Your task to perform on an android device: add a contact Image 0: 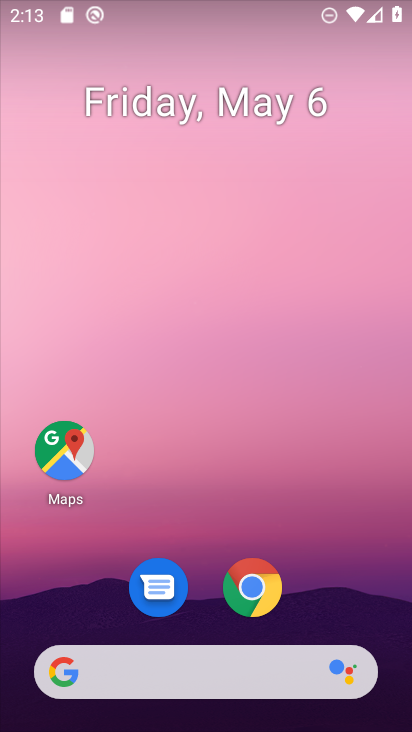
Step 0: drag from (305, 543) to (263, 95)
Your task to perform on an android device: add a contact Image 1: 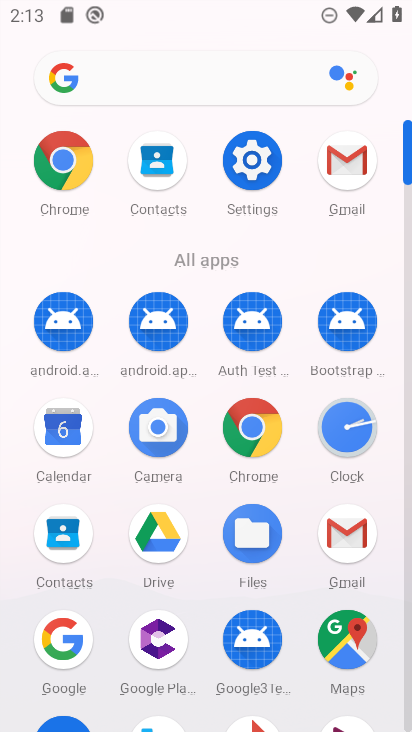
Step 1: click (151, 165)
Your task to perform on an android device: add a contact Image 2: 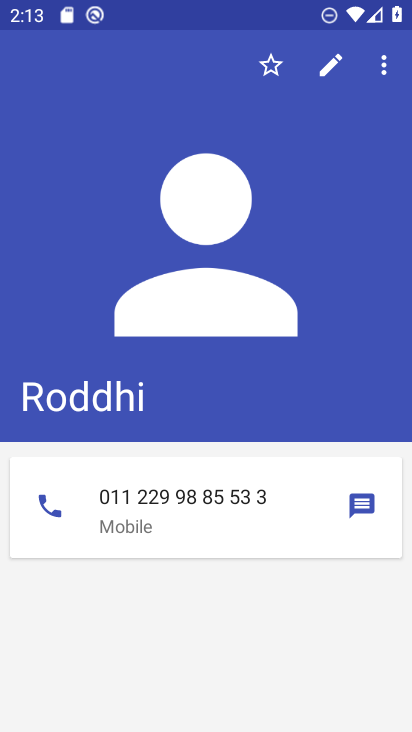
Step 2: click (386, 66)
Your task to perform on an android device: add a contact Image 3: 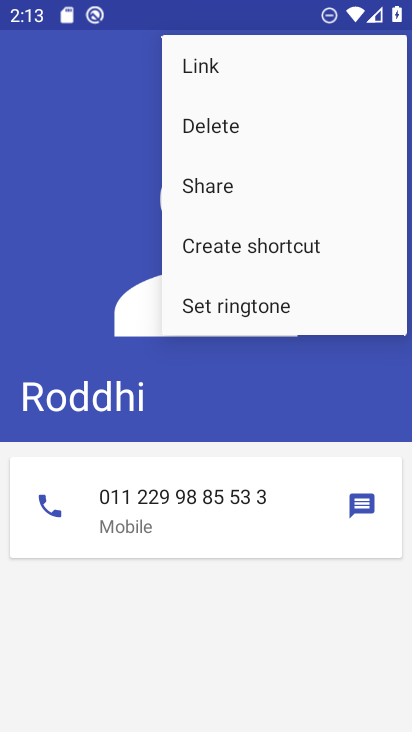
Step 3: click (345, 367)
Your task to perform on an android device: add a contact Image 4: 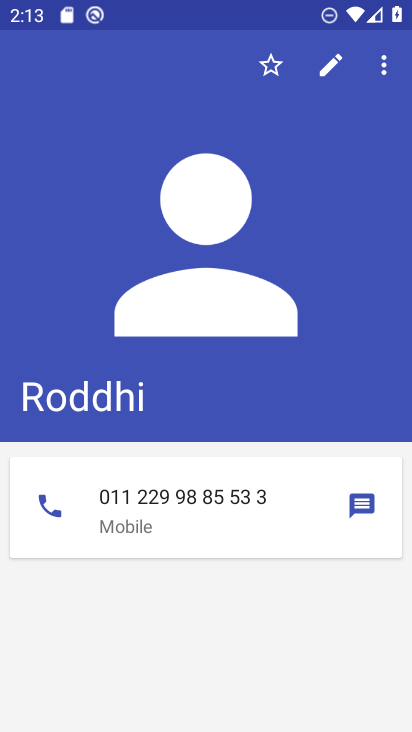
Step 4: press back button
Your task to perform on an android device: add a contact Image 5: 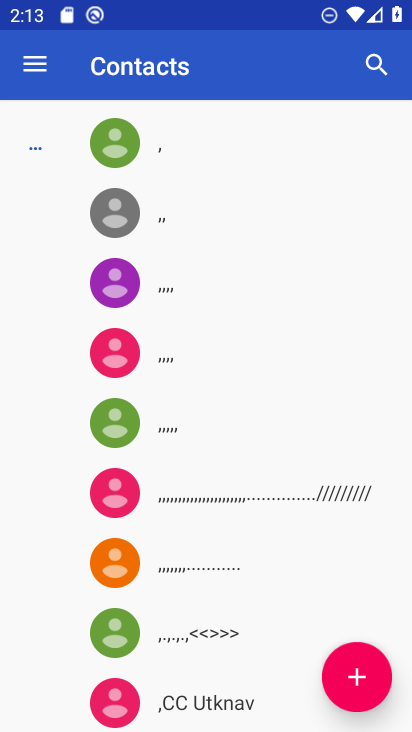
Step 5: click (369, 653)
Your task to perform on an android device: add a contact Image 6: 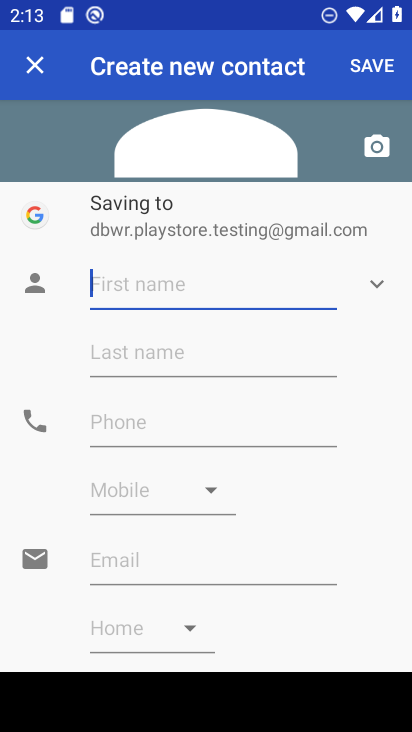
Step 6: type "Siddhhi"
Your task to perform on an android device: add a contact Image 7: 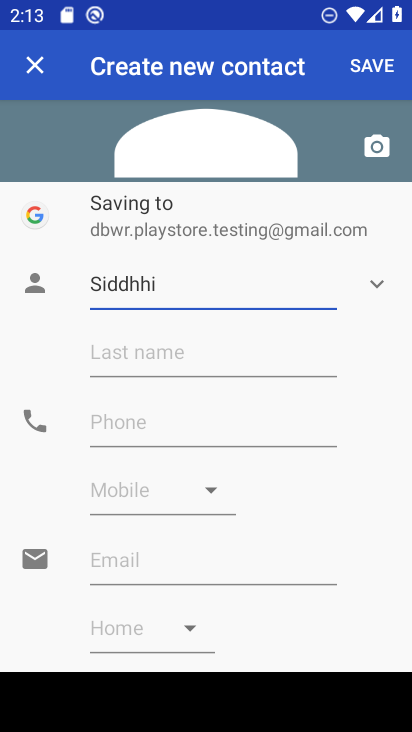
Step 7: click (232, 425)
Your task to perform on an android device: add a contact Image 8: 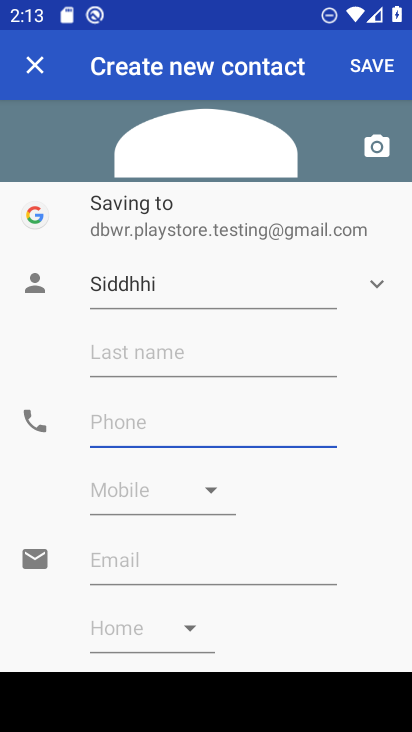
Step 8: type "01122334455"
Your task to perform on an android device: add a contact Image 9: 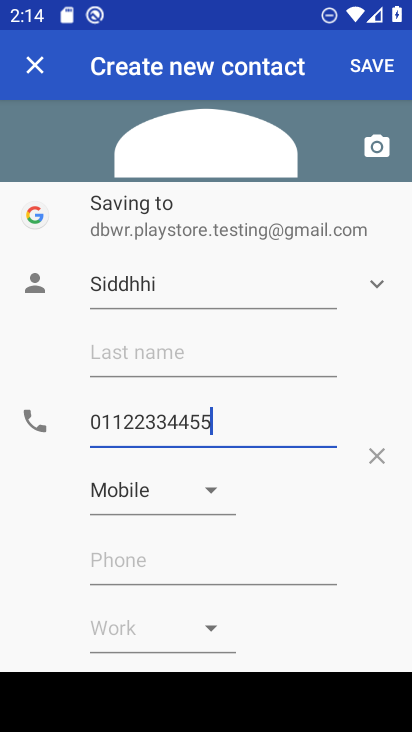
Step 9: click (378, 63)
Your task to perform on an android device: add a contact Image 10: 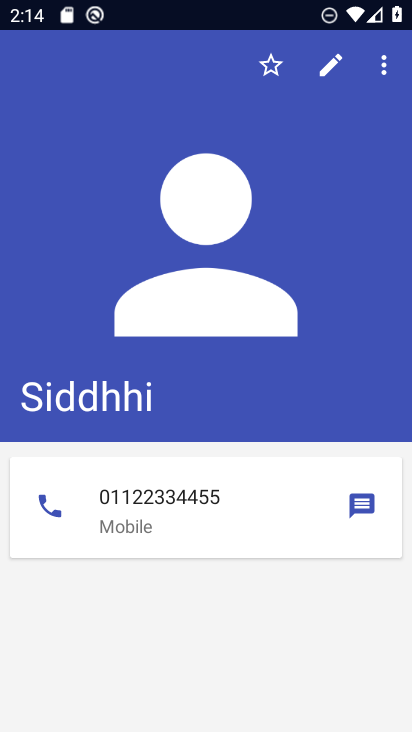
Step 10: task complete